Your task to perform on an android device: Search for flights from Buenos aires to Helsinki Image 0: 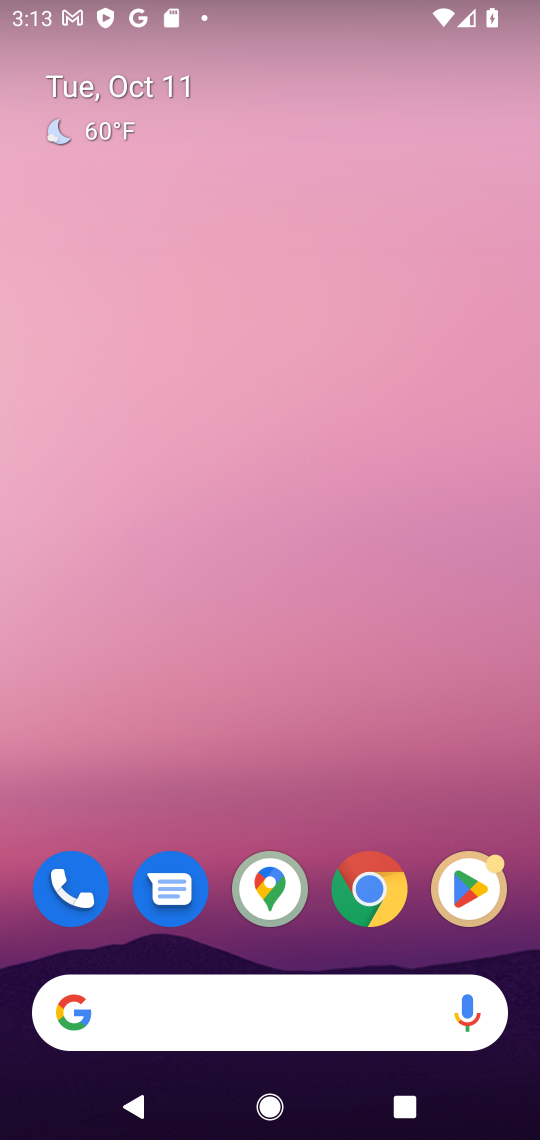
Step 0: drag from (280, 588) to (280, 329)
Your task to perform on an android device: Search for flights from Buenos aires to Helsinki Image 1: 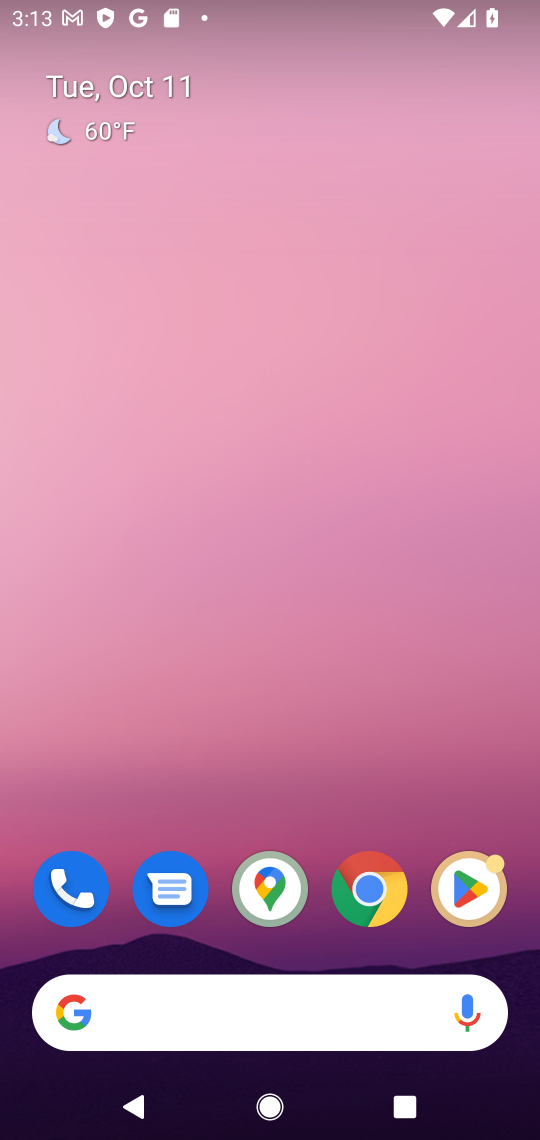
Step 1: drag from (290, 976) to (275, 546)
Your task to perform on an android device: Search for flights from Buenos aires to Helsinki Image 2: 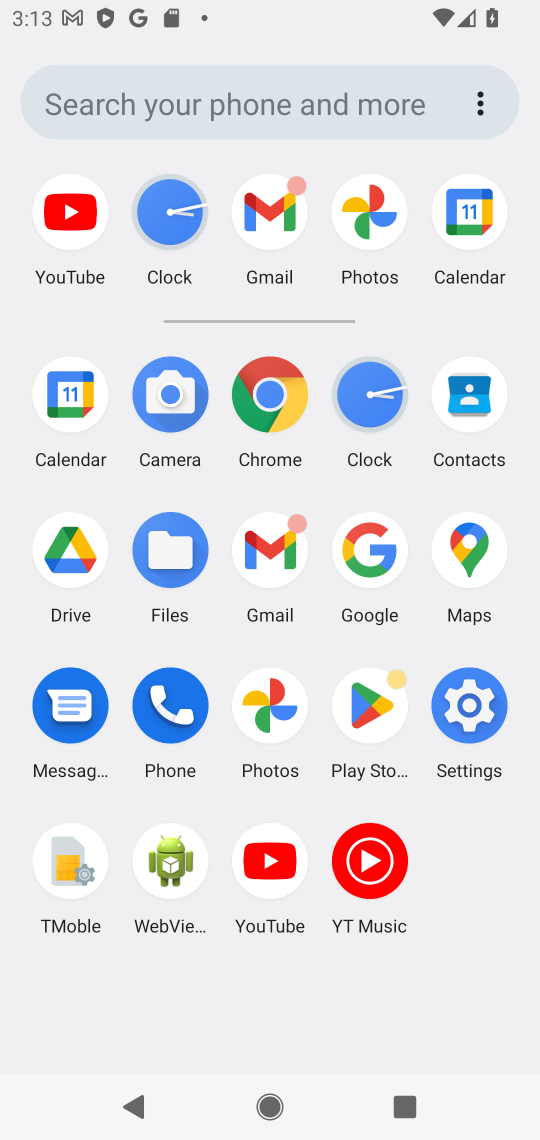
Step 2: click (381, 543)
Your task to perform on an android device: Search for flights from Buenos aires to Helsinki Image 3: 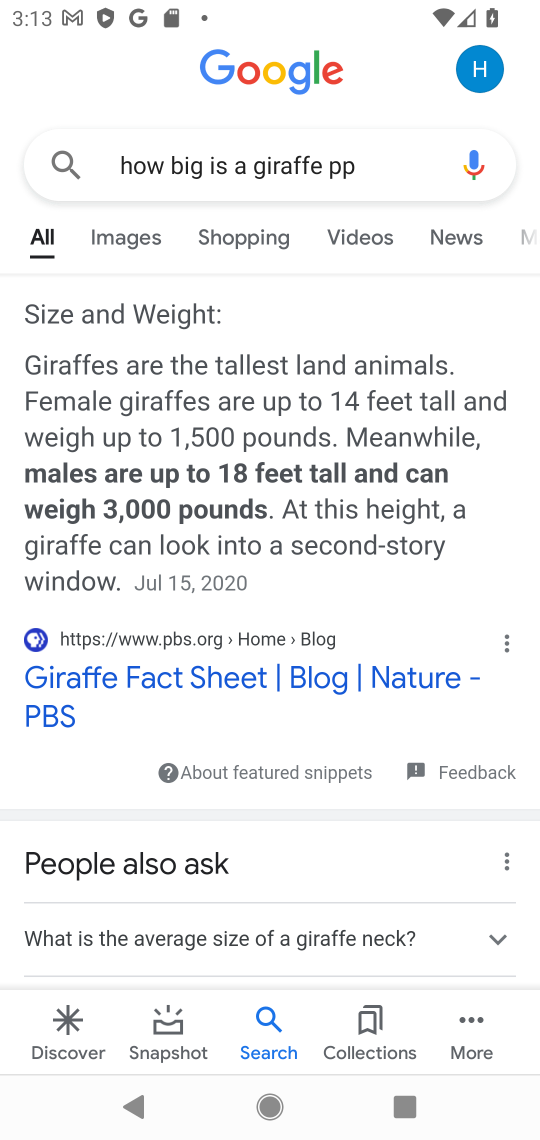
Step 3: click (344, 155)
Your task to perform on an android device: Search for flights from Buenos aires to Helsinki Image 4: 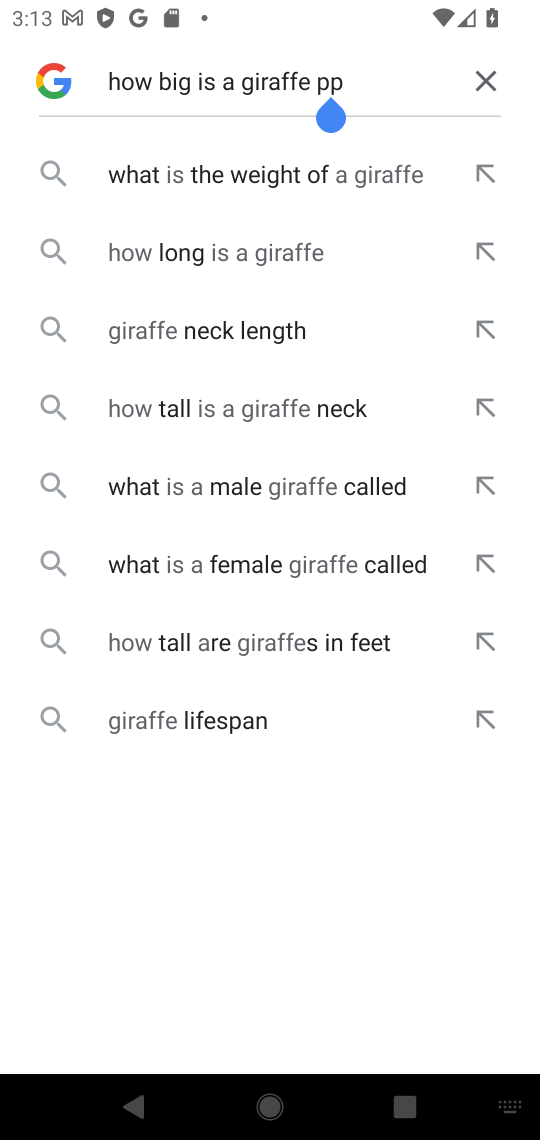
Step 4: click (479, 77)
Your task to perform on an android device: Search for flights from Buenos aires to Helsinki Image 5: 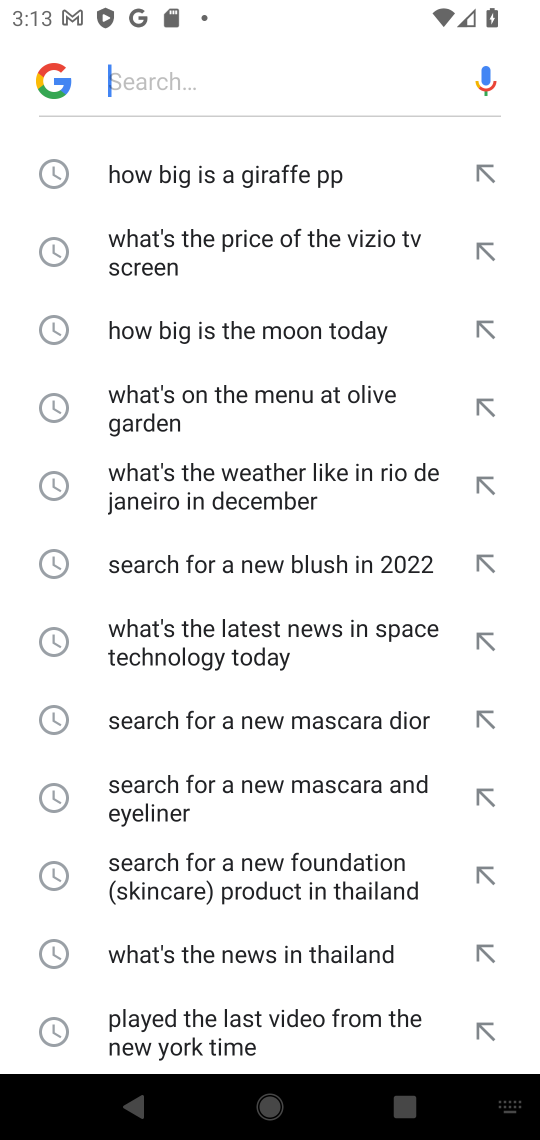
Step 5: click (319, 91)
Your task to perform on an android device: Search for flights from Buenos aires to Helsinki Image 6: 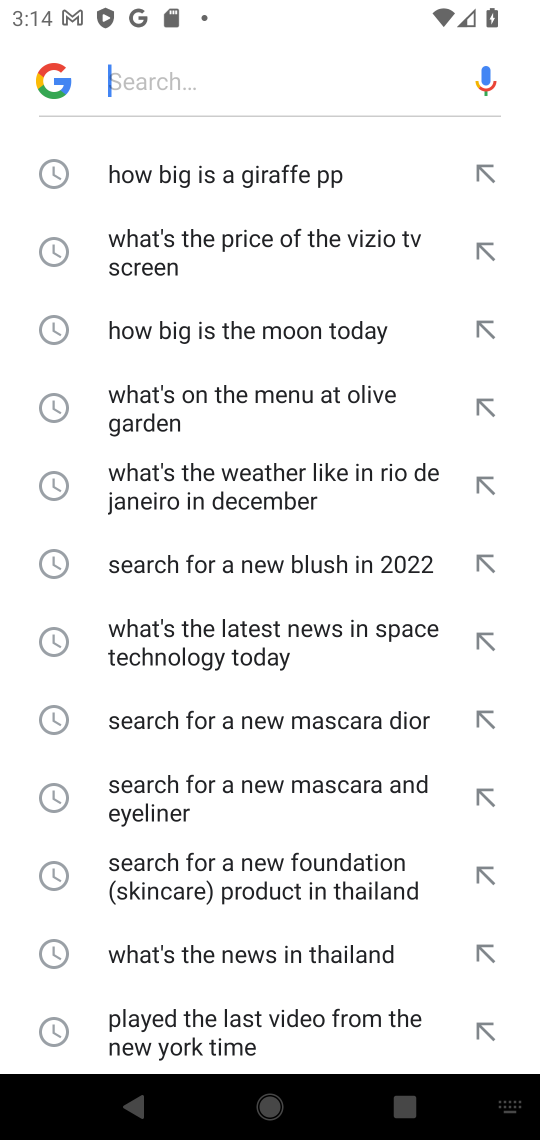
Step 6: type "Search for flights from Buenos aires to Helsinki "
Your task to perform on an android device: Search for flights from Buenos aires to Helsinki Image 7: 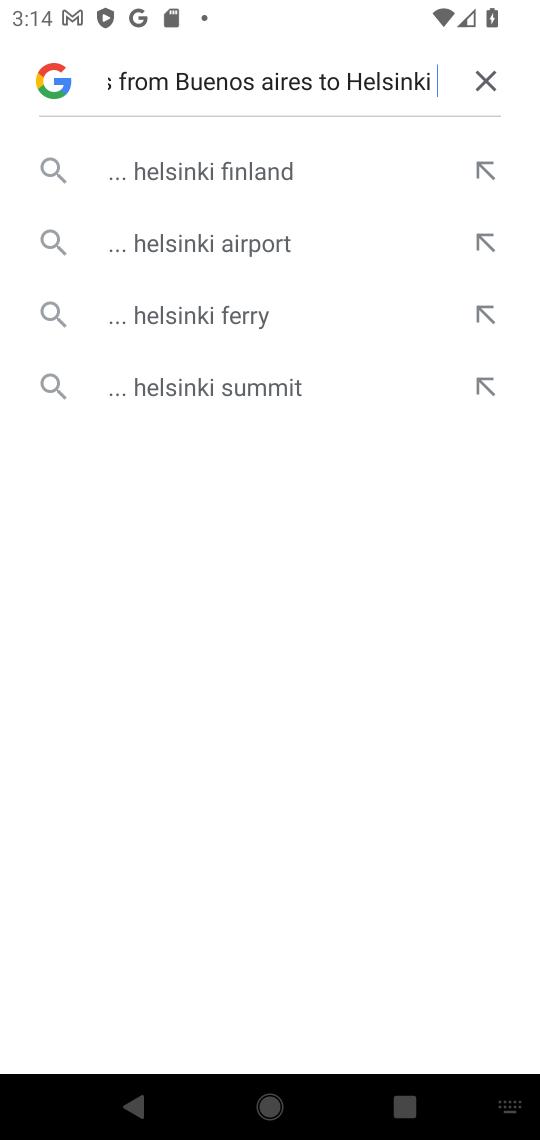
Step 7: click (167, 175)
Your task to perform on an android device: Search for flights from Buenos aires to Helsinki Image 8: 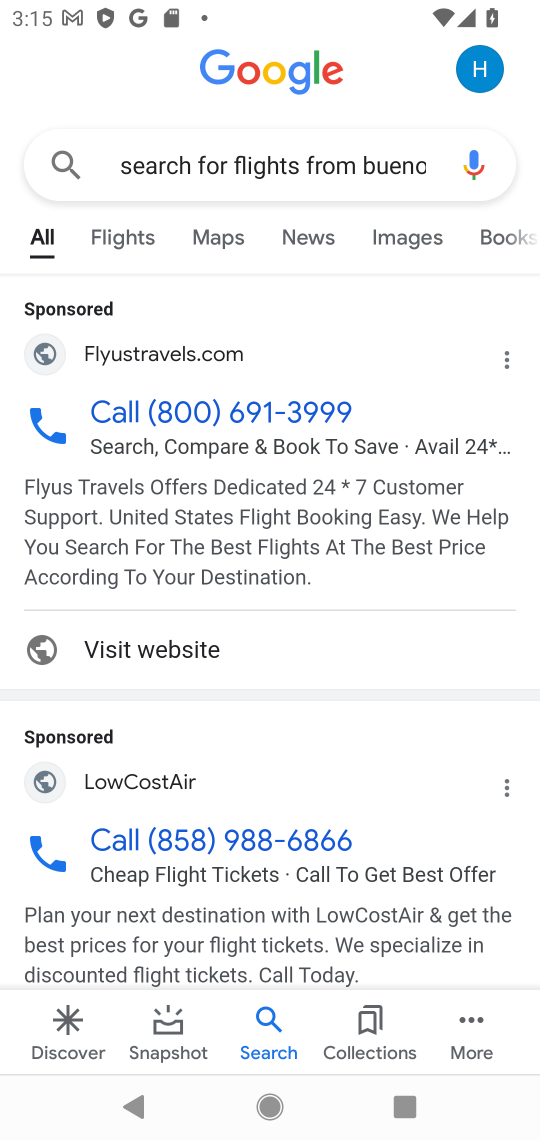
Step 8: drag from (217, 932) to (277, 279)
Your task to perform on an android device: Search for flights from Buenos aires to Helsinki Image 9: 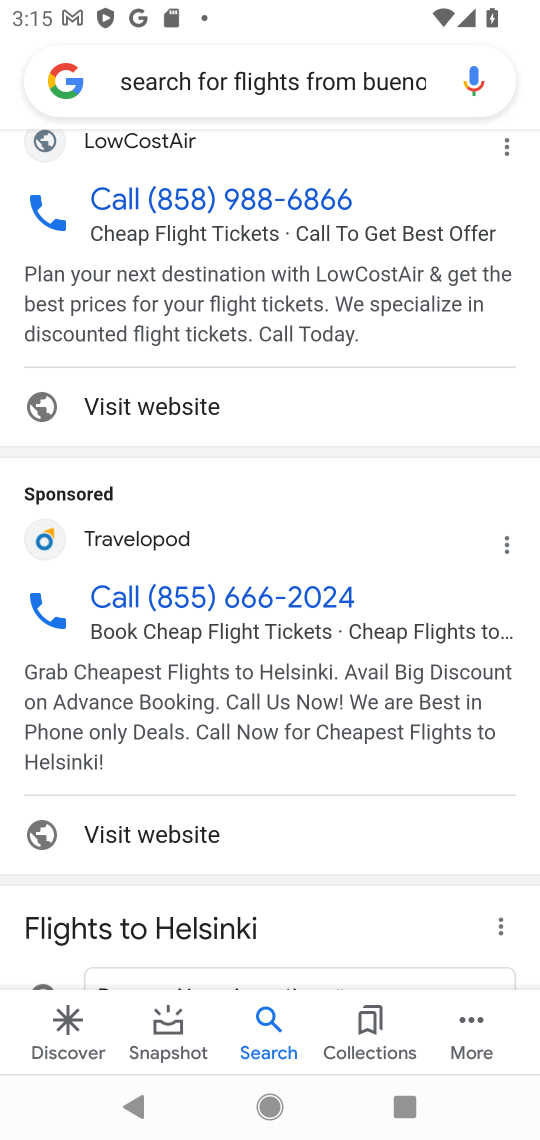
Step 9: drag from (281, 884) to (379, 346)
Your task to perform on an android device: Search for flights from Buenos aires to Helsinki Image 10: 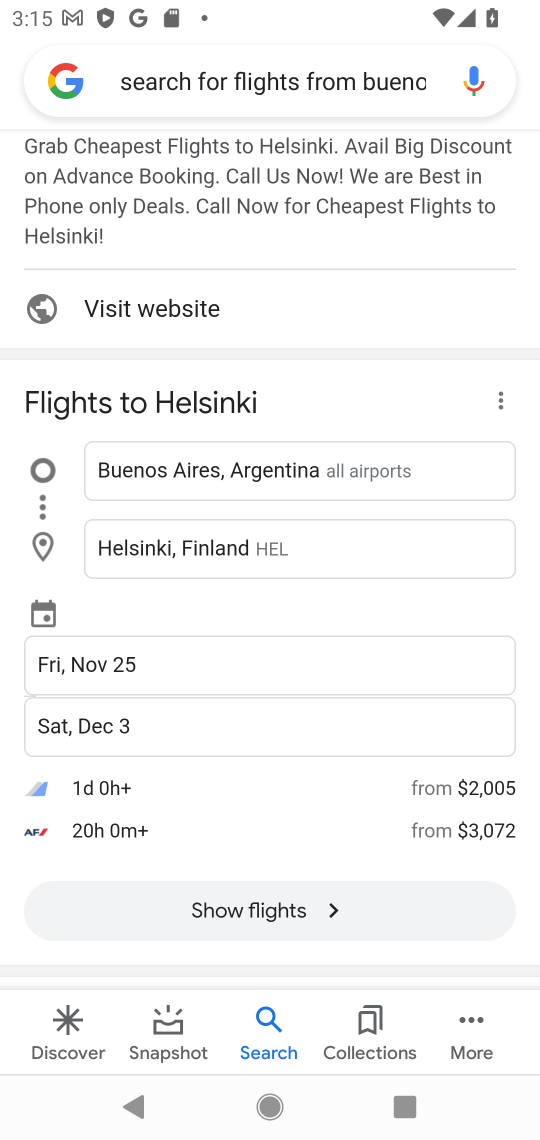
Step 10: drag from (336, 804) to (369, 267)
Your task to perform on an android device: Search for flights from Buenos aires to Helsinki Image 11: 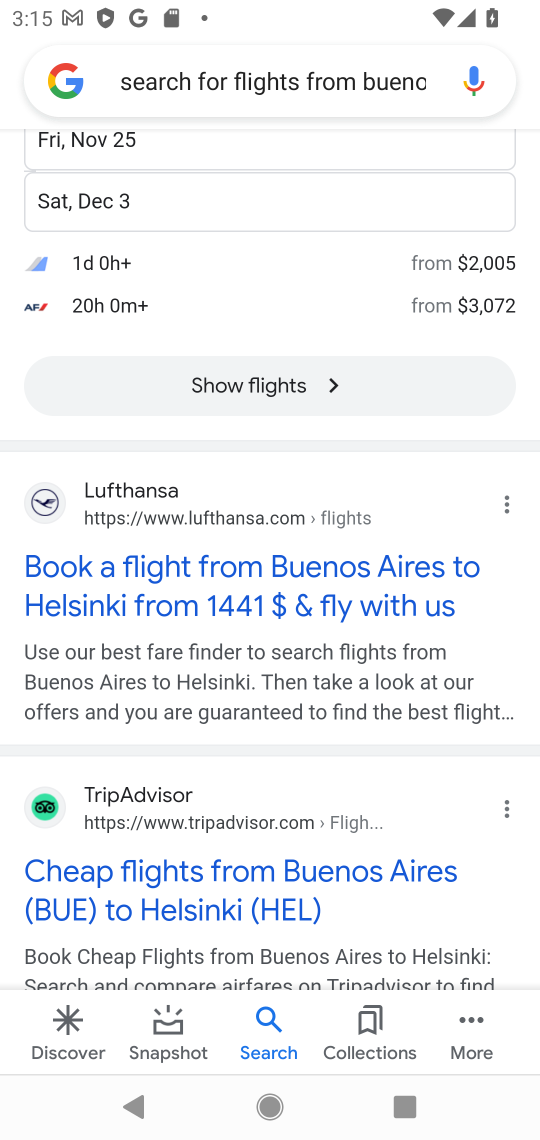
Step 11: click (346, 570)
Your task to perform on an android device: Search for flights from Buenos aires to Helsinki Image 12: 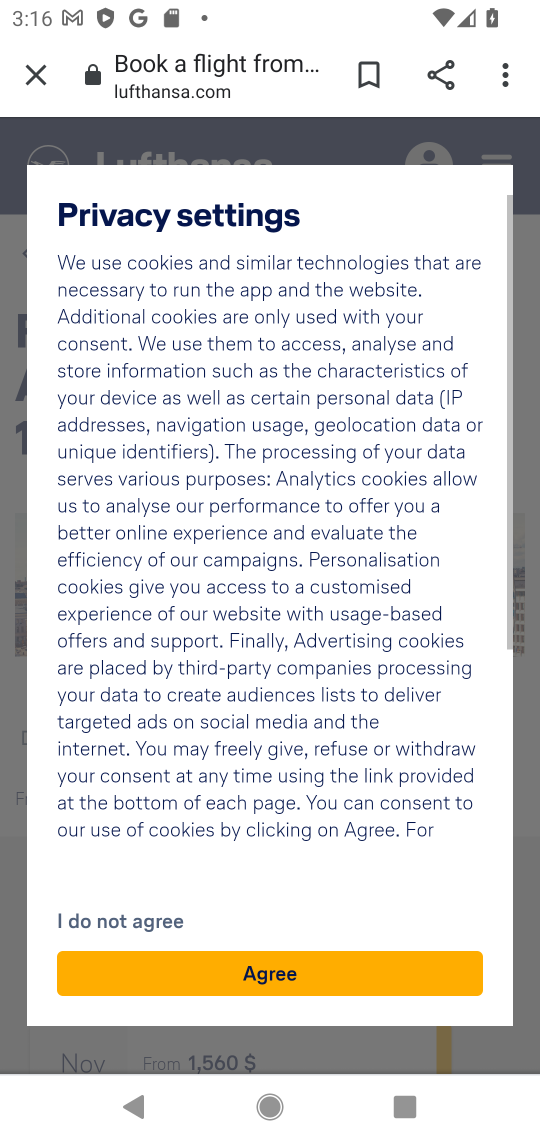
Step 12: click (232, 971)
Your task to perform on an android device: Search for flights from Buenos aires to Helsinki Image 13: 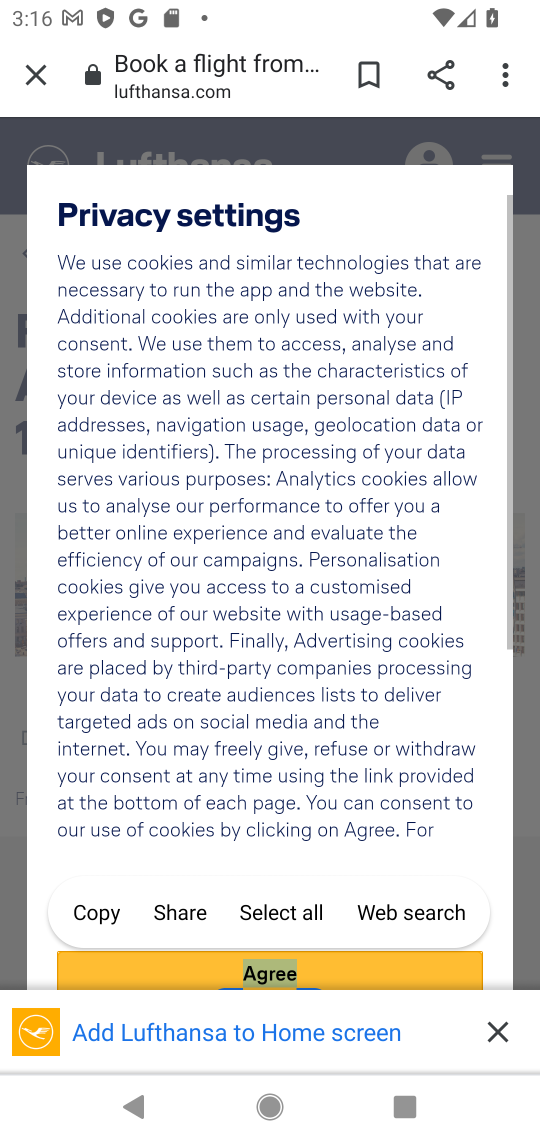
Step 13: click (500, 1027)
Your task to perform on an android device: Search for flights from Buenos aires to Helsinki Image 14: 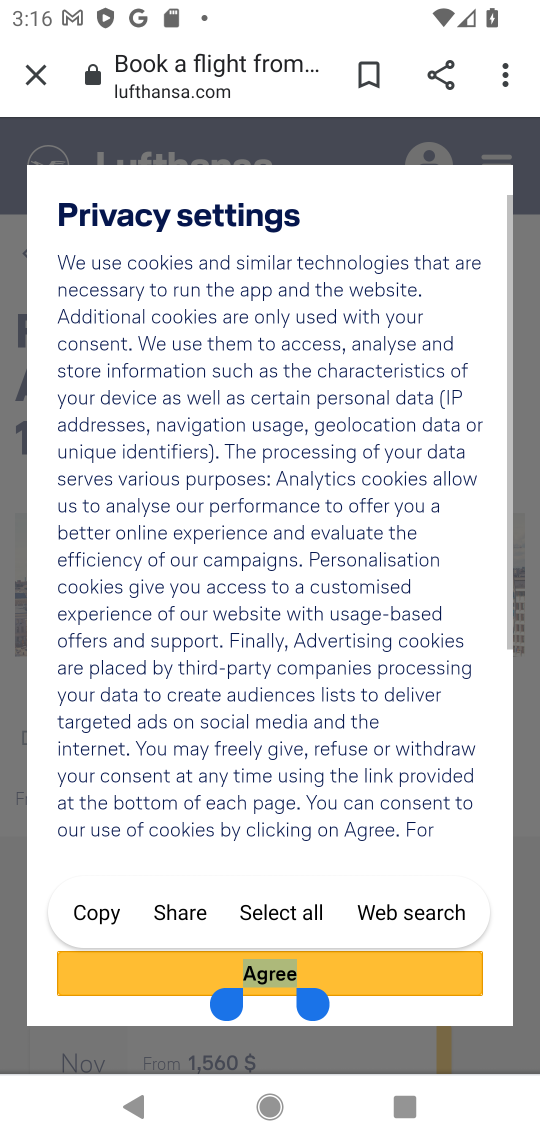
Step 14: click (329, 971)
Your task to perform on an android device: Search for flights from Buenos aires to Helsinki Image 15: 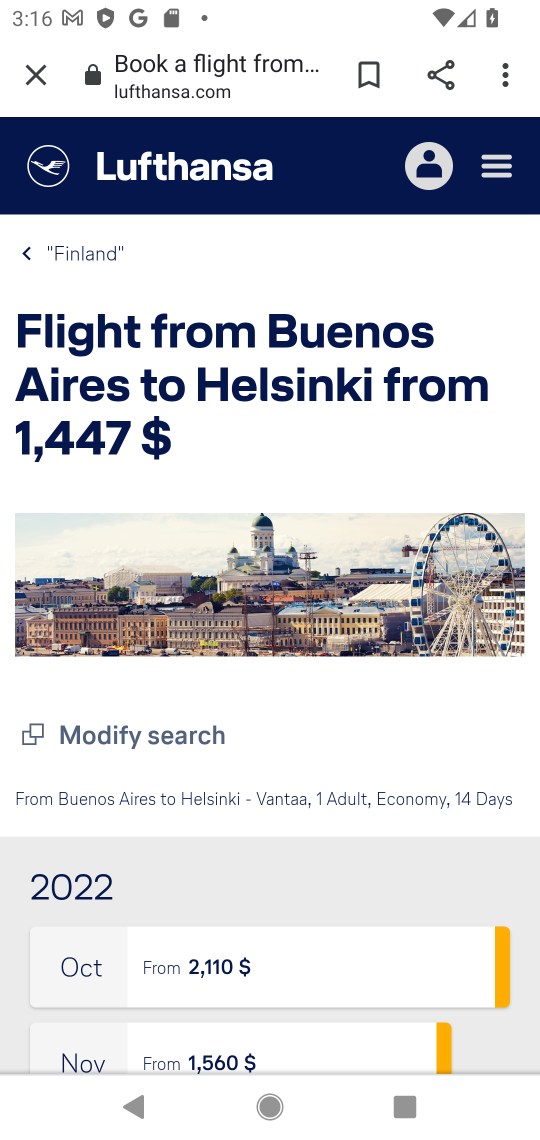
Step 15: click (329, 971)
Your task to perform on an android device: Search for flights from Buenos aires to Helsinki Image 16: 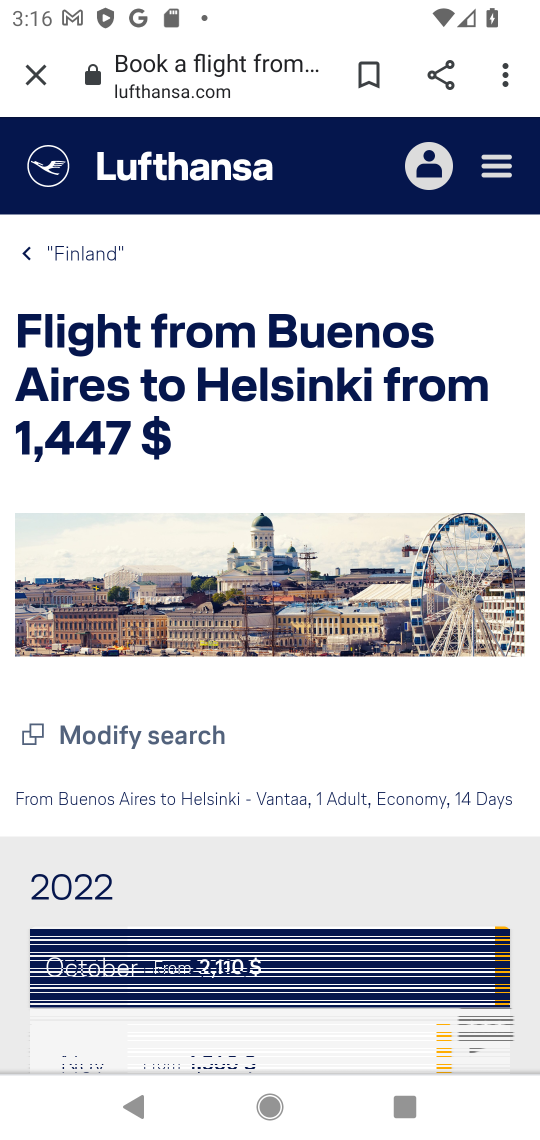
Step 16: task complete